Your task to perform on an android device: Open network settings Image 0: 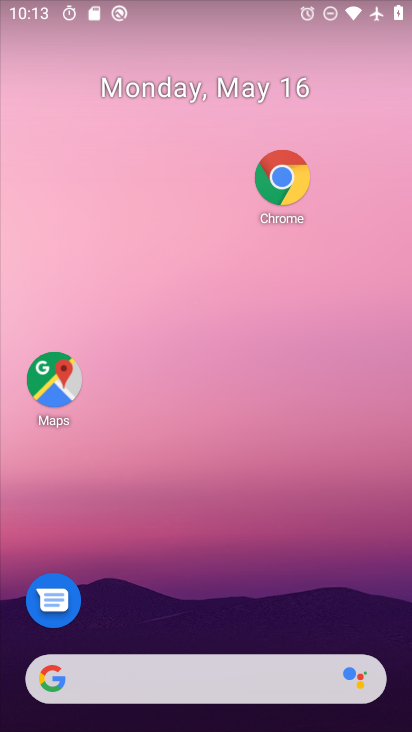
Step 0: drag from (232, 672) to (335, 109)
Your task to perform on an android device: Open network settings Image 1: 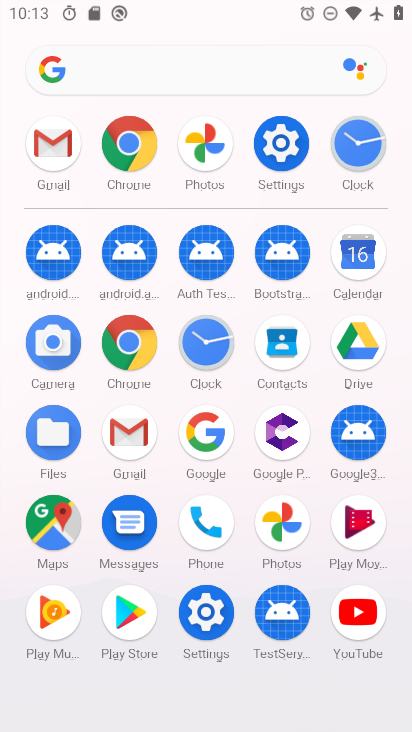
Step 1: click (289, 154)
Your task to perform on an android device: Open network settings Image 2: 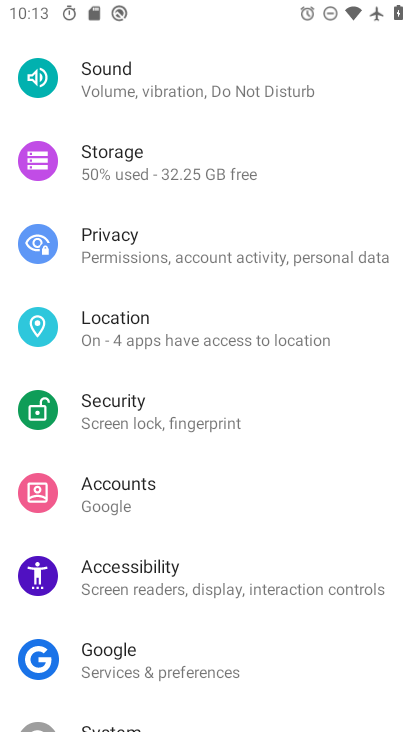
Step 2: drag from (317, 101) to (228, 575)
Your task to perform on an android device: Open network settings Image 3: 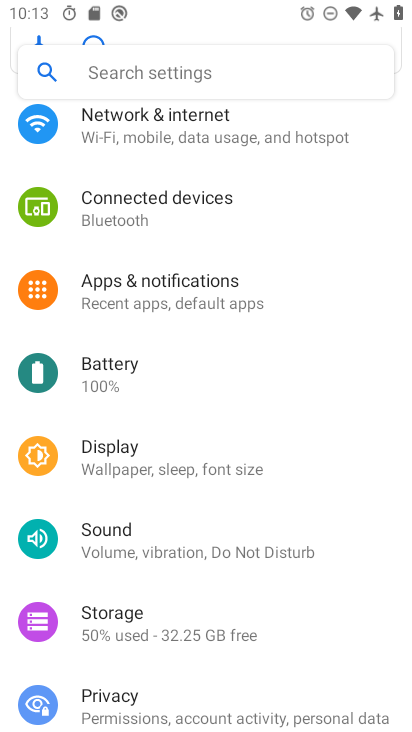
Step 3: click (191, 121)
Your task to perform on an android device: Open network settings Image 4: 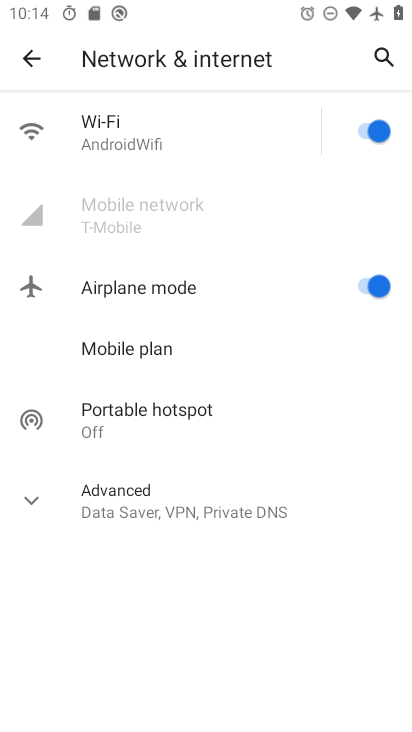
Step 4: task complete